Your task to perform on an android device: When is my next meeting? Image 0: 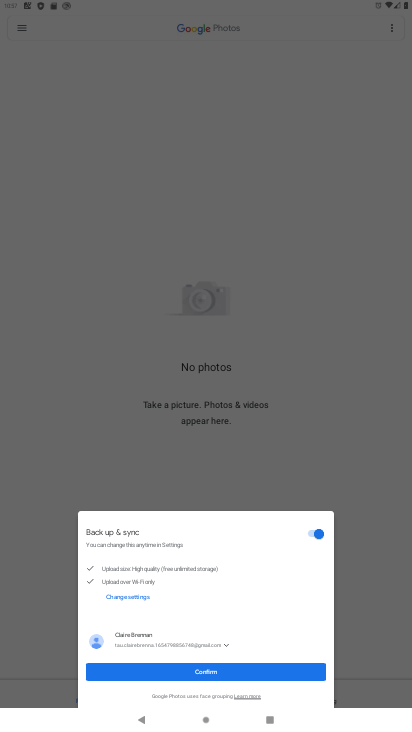
Step 0: press home button
Your task to perform on an android device: When is my next meeting? Image 1: 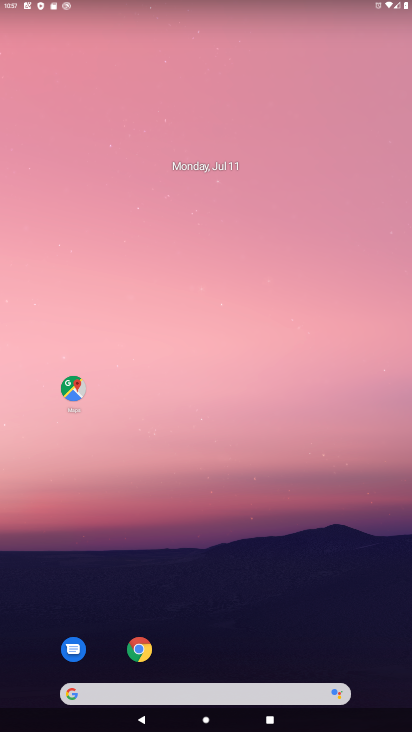
Step 1: drag from (377, 562) to (334, 99)
Your task to perform on an android device: When is my next meeting? Image 2: 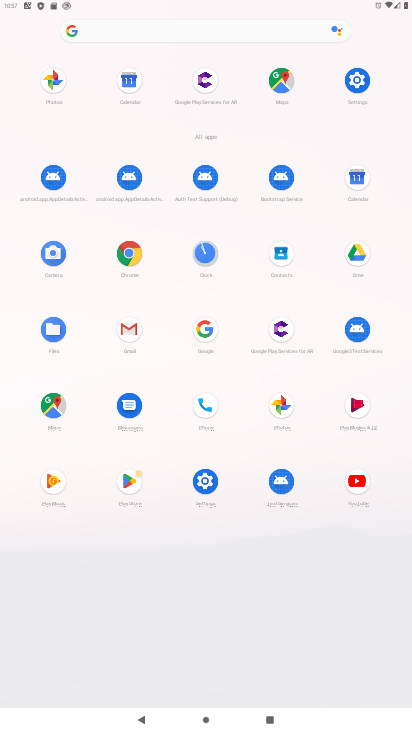
Step 2: click (353, 176)
Your task to perform on an android device: When is my next meeting? Image 3: 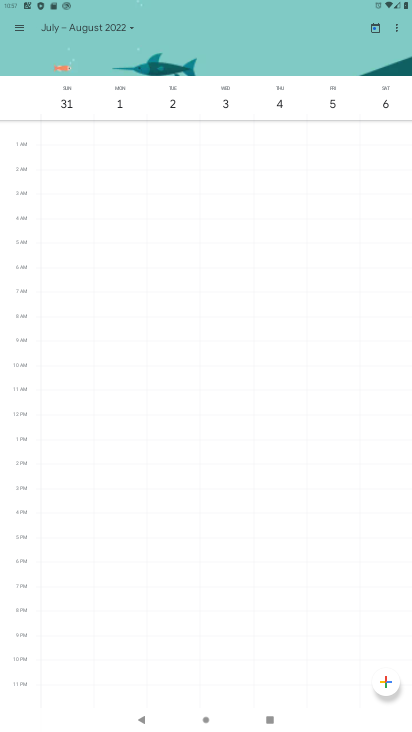
Step 3: click (18, 21)
Your task to perform on an android device: When is my next meeting? Image 4: 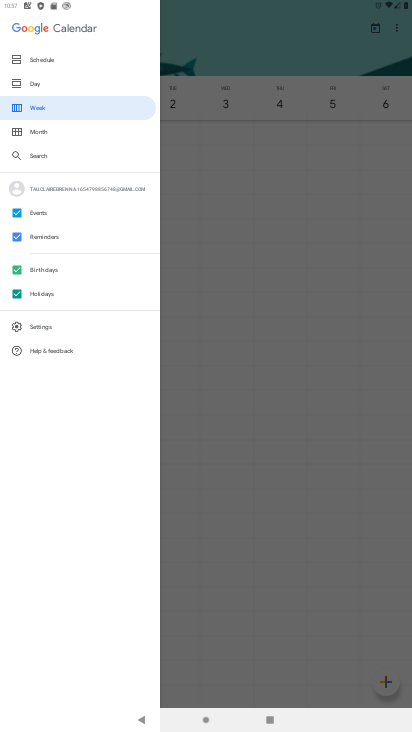
Step 4: click (40, 59)
Your task to perform on an android device: When is my next meeting? Image 5: 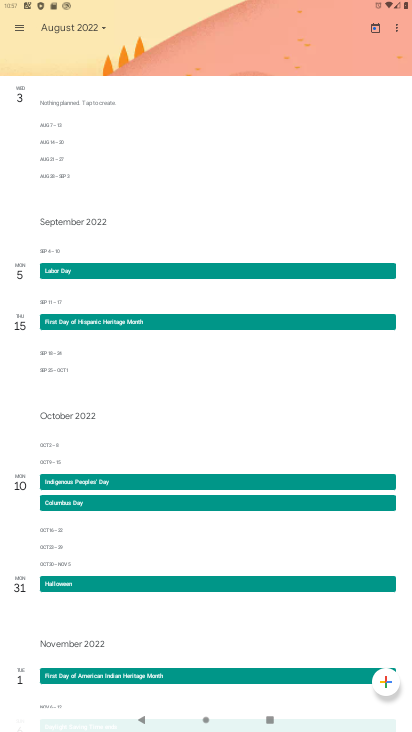
Step 5: task complete